Your task to perform on an android device: Go to eBay Image 0: 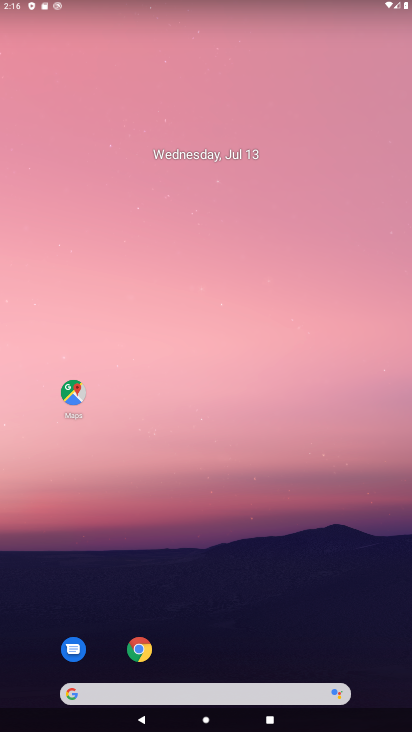
Step 0: click (134, 649)
Your task to perform on an android device: Go to eBay Image 1: 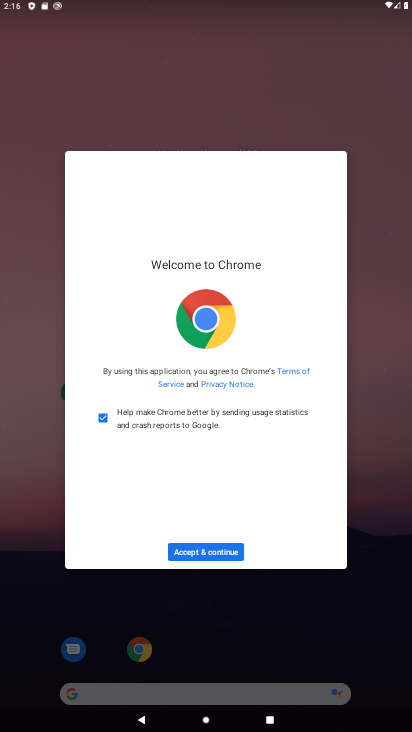
Step 1: click (221, 552)
Your task to perform on an android device: Go to eBay Image 2: 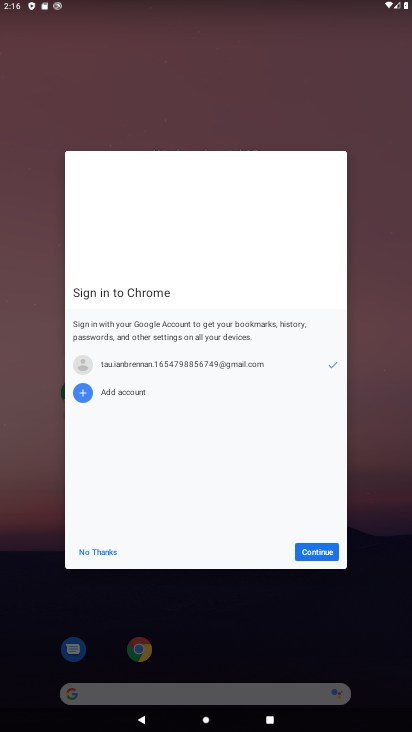
Step 2: click (319, 551)
Your task to perform on an android device: Go to eBay Image 3: 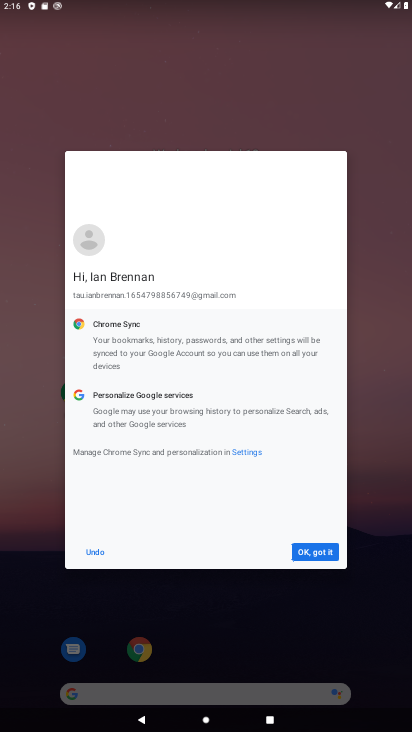
Step 3: click (319, 551)
Your task to perform on an android device: Go to eBay Image 4: 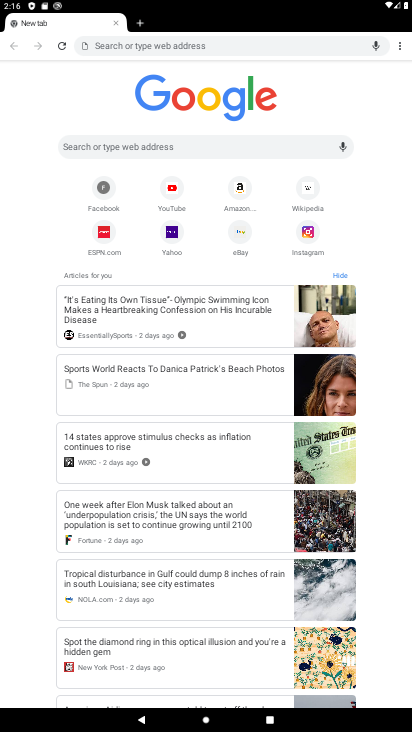
Step 4: click (237, 245)
Your task to perform on an android device: Go to eBay Image 5: 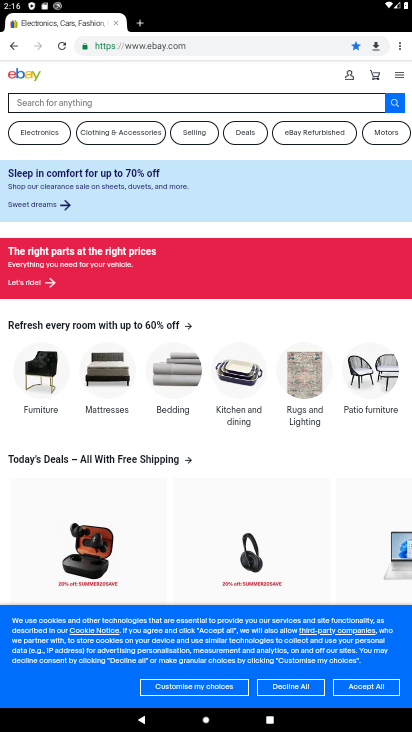
Step 5: task complete